Your task to perform on an android device: Add usb-b to the cart on bestbuy.com, then select checkout. Image 0: 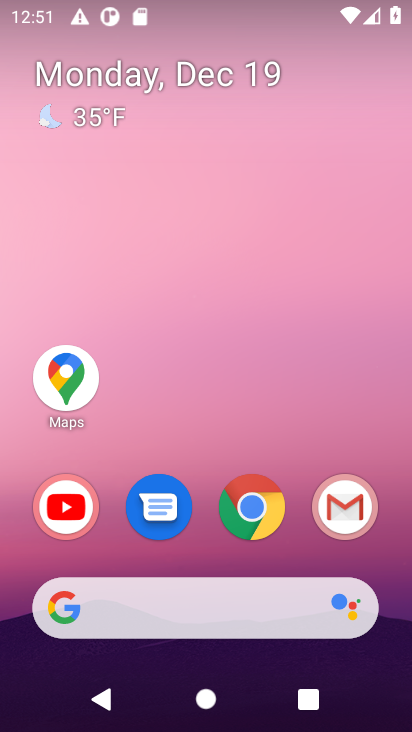
Step 0: click (255, 508)
Your task to perform on an android device: Add usb-b to the cart on bestbuy.com, then select checkout. Image 1: 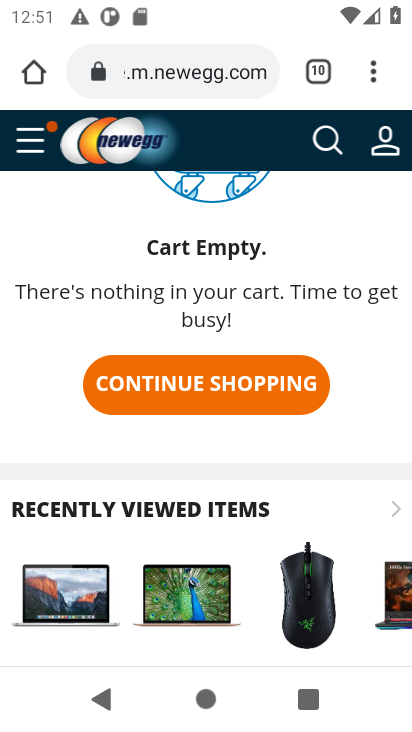
Step 1: click (171, 64)
Your task to perform on an android device: Add usb-b to the cart on bestbuy.com, then select checkout. Image 2: 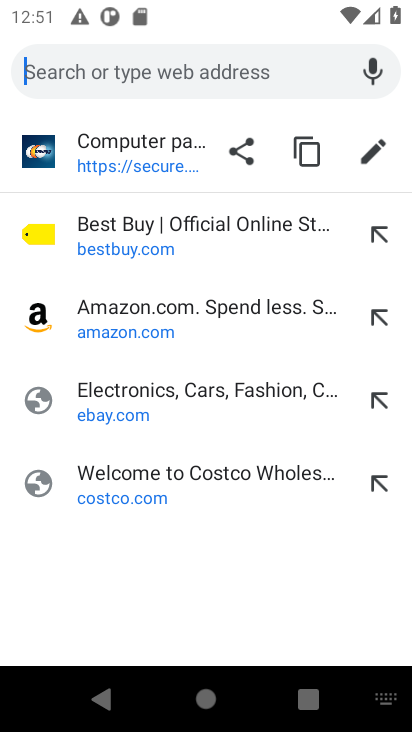
Step 2: click (96, 234)
Your task to perform on an android device: Add usb-b to the cart on bestbuy.com, then select checkout. Image 3: 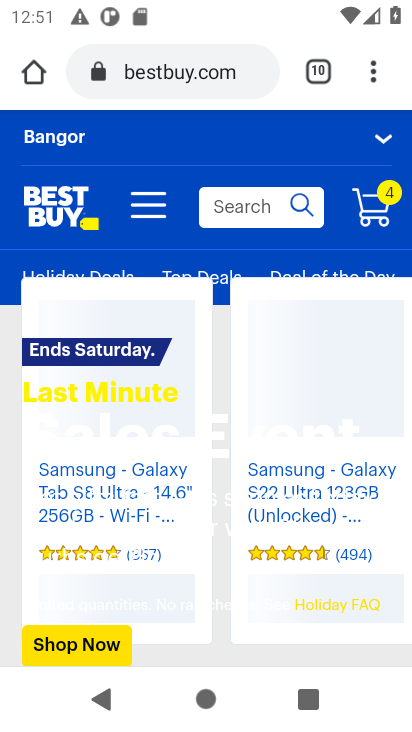
Step 3: click (222, 209)
Your task to perform on an android device: Add usb-b to the cart on bestbuy.com, then select checkout. Image 4: 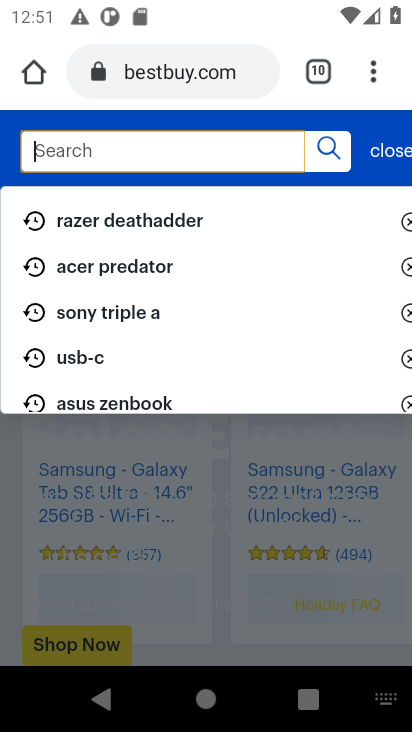
Step 4: type "usb-b"
Your task to perform on an android device: Add usb-b to the cart on bestbuy.com, then select checkout. Image 5: 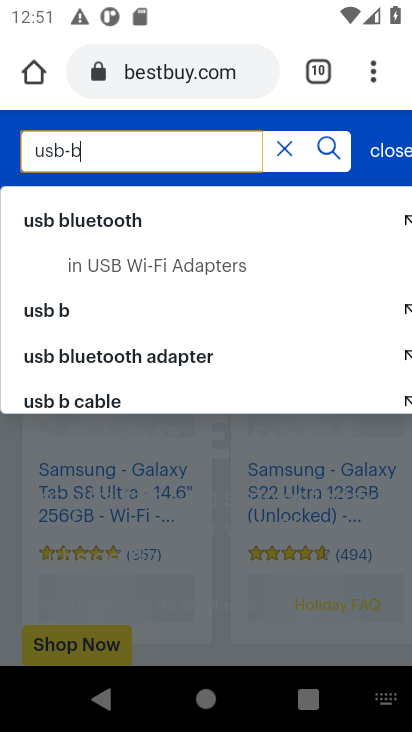
Step 5: click (45, 300)
Your task to perform on an android device: Add usb-b to the cart on bestbuy.com, then select checkout. Image 6: 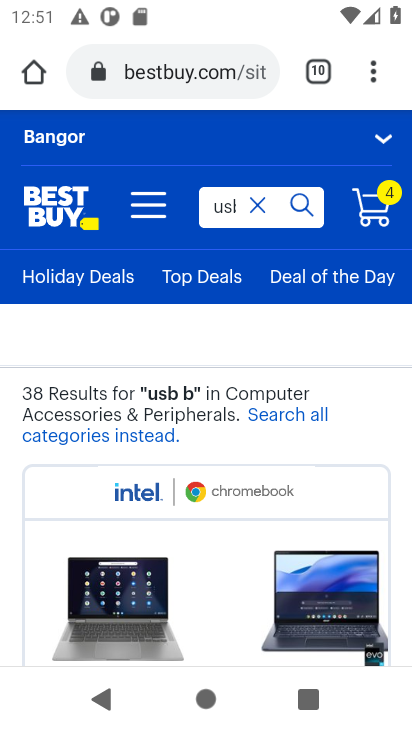
Step 6: drag from (137, 533) to (146, 247)
Your task to perform on an android device: Add usb-b to the cart on bestbuy.com, then select checkout. Image 7: 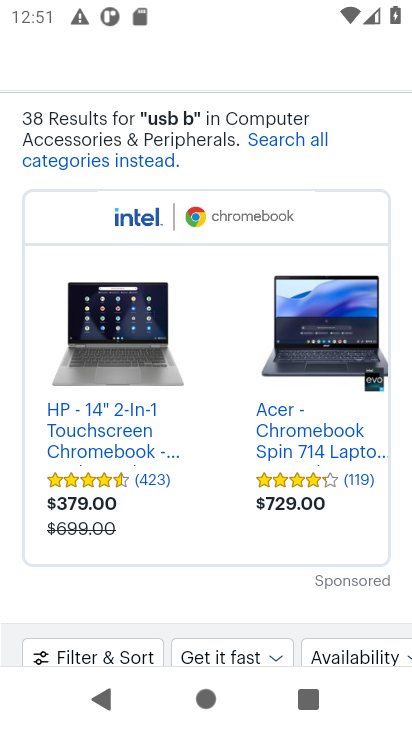
Step 7: drag from (110, 532) to (122, 203)
Your task to perform on an android device: Add usb-b to the cart on bestbuy.com, then select checkout. Image 8: 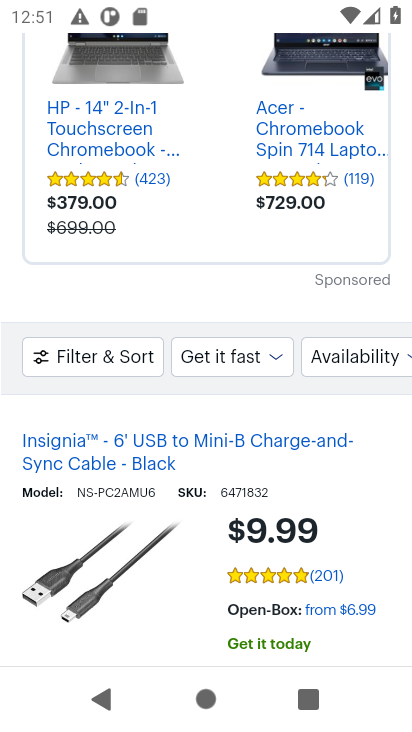
Step 8: drag from (107, 402) to (105, 236)
Your task to perform on an android device: Add usb-b to the cart on bestbuy.com, then select checkout. Image 9: 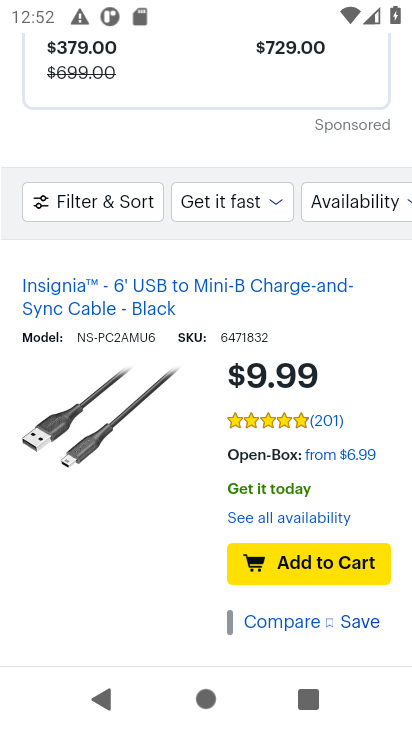
Step 9: drag from (108, 409) to (113, 199)
Your task to perform on an android device: Add usb-b to the cart on bestbuy.com, then select checkout. Image 10: 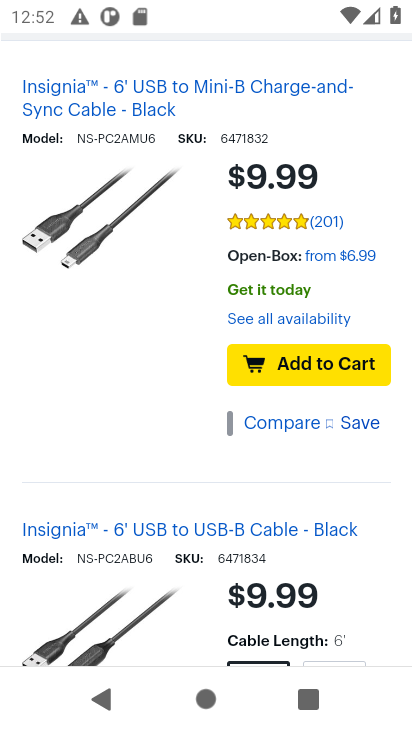
Step 10: drag from (89, 455) to (95, 262)
Your task to perform on an android device: Add usb-b to the cart on bestbuy.com, then select checkout. Image 11: 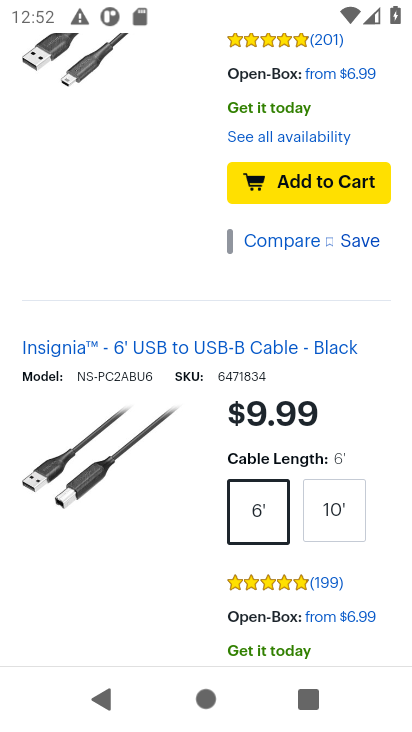
Step 11: drag from (147, 383) to (132, 213)
Your task to perform on an android device: Add usb-b to the cart on bestbuy.com, then select checkout. Image 12: 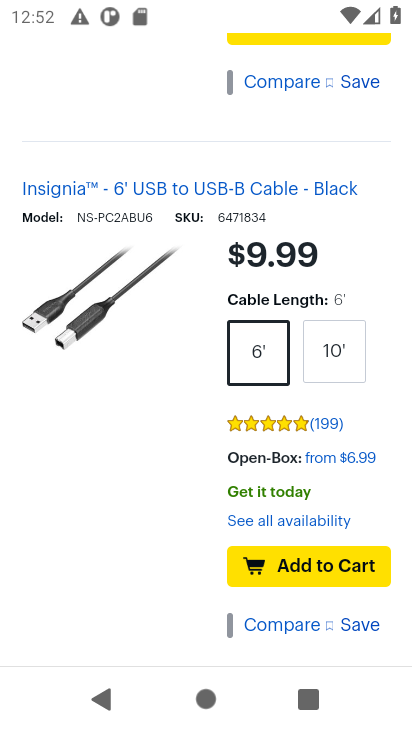
Step 12: click (280, 561)
Your task to perform on an android device: Add usb-b to the cart on bestbuy.com, then select checkout. Image 13: 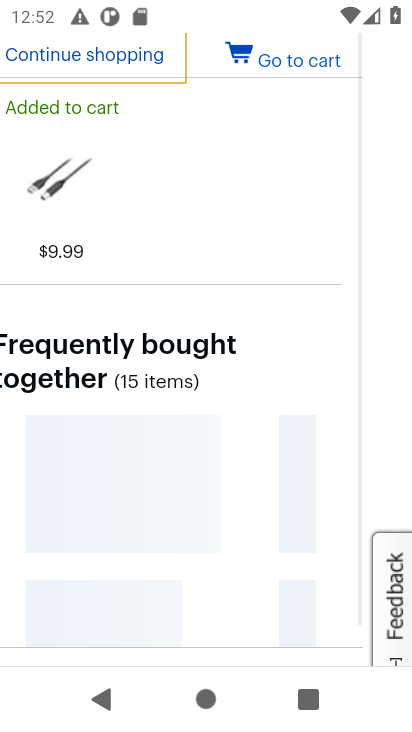
Step 13: click (294, 68)
Your task to perform on an android device: Add usb-b to the cart on bestbuy.com, then select checkout. Image 14: 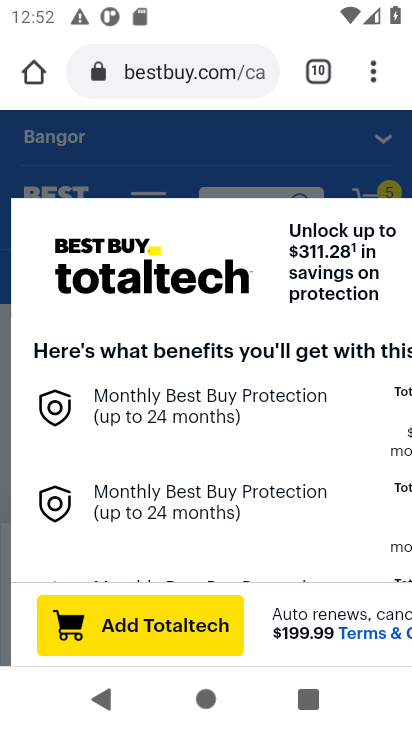
Step 14: click (325, 148)
Your task to perform on an android device: Add usb-b to the cart on bestbuy.com, then select checkout. Image 15: 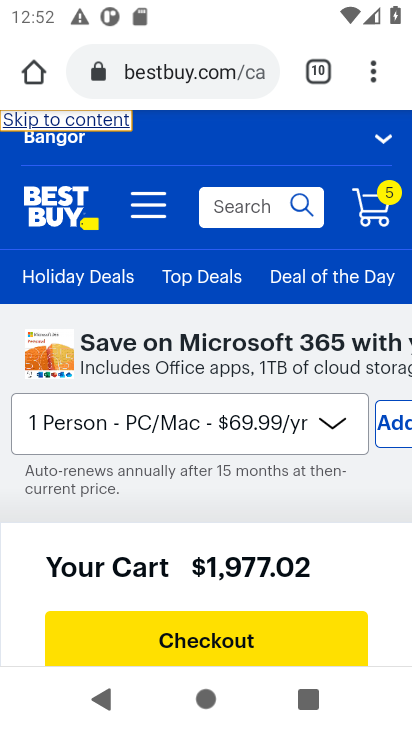
Step 15: click (226, 640)
Your task to perform on an android device: Add usb-b to the cart on bestbuy.com, then select checkout. Image 16: 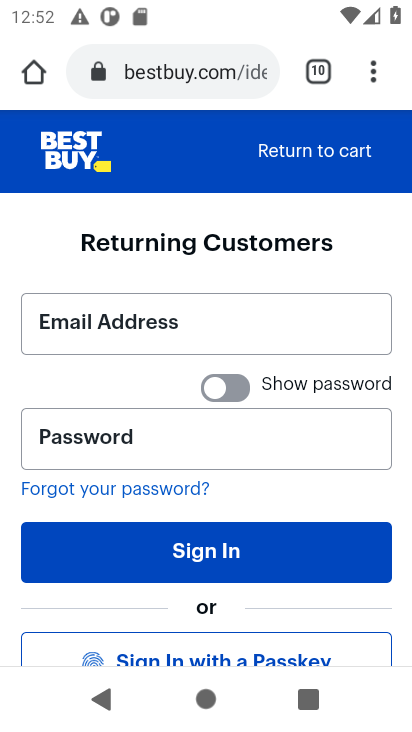
Step 16: task complete